Your task to perform on an android device: install app "Google Play Games" Image 0: 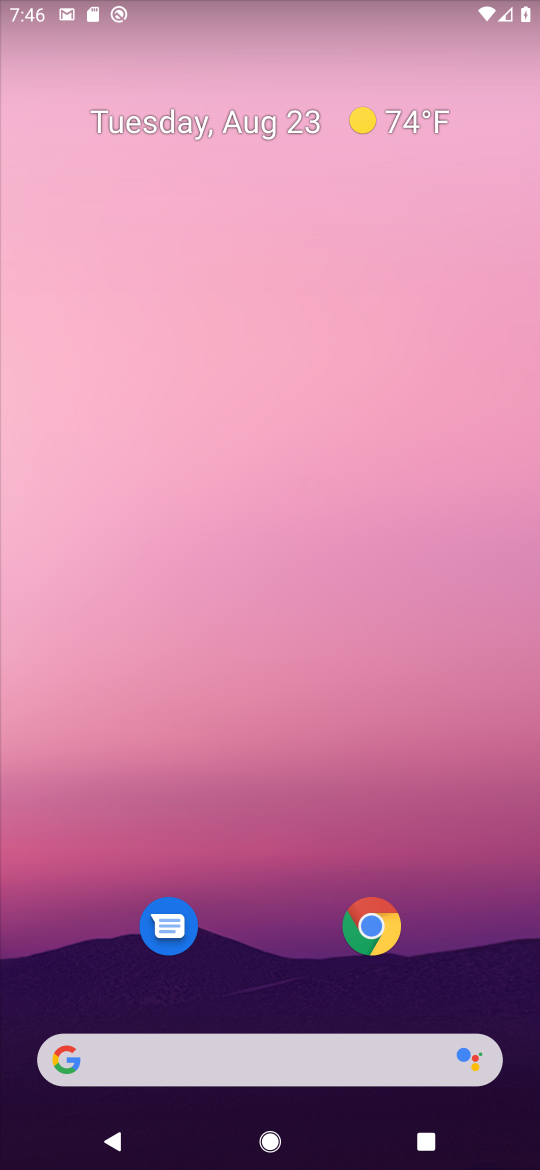
Step 0: drag from (252, 1001) to (293, 4)
Your task to perform on an android device: install app "Google Play Games" Image 1: 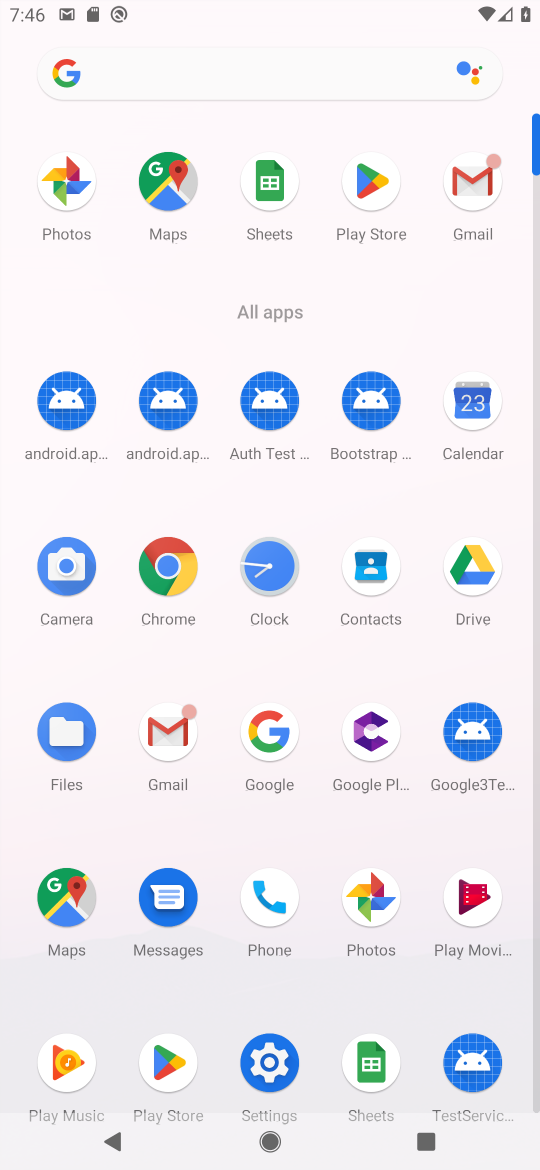
Step 1: click (380, 199)
Your task to perform on an android device: install app "Google Play Games" Image 2: 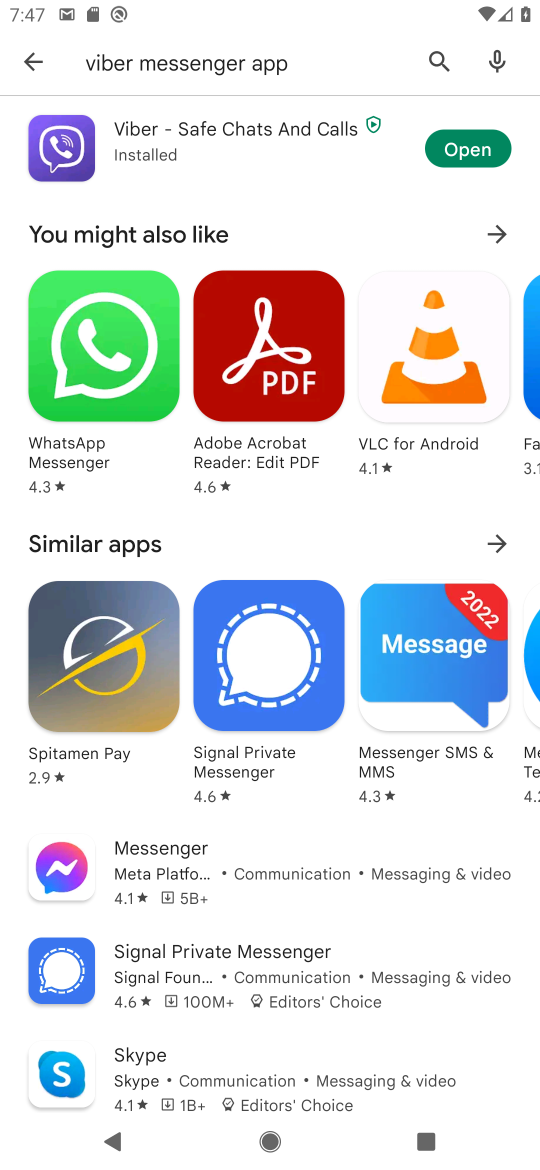
Step 2: click (208, 66)
Your task to perform on an android device: install app "Google Play Games" Image 3: 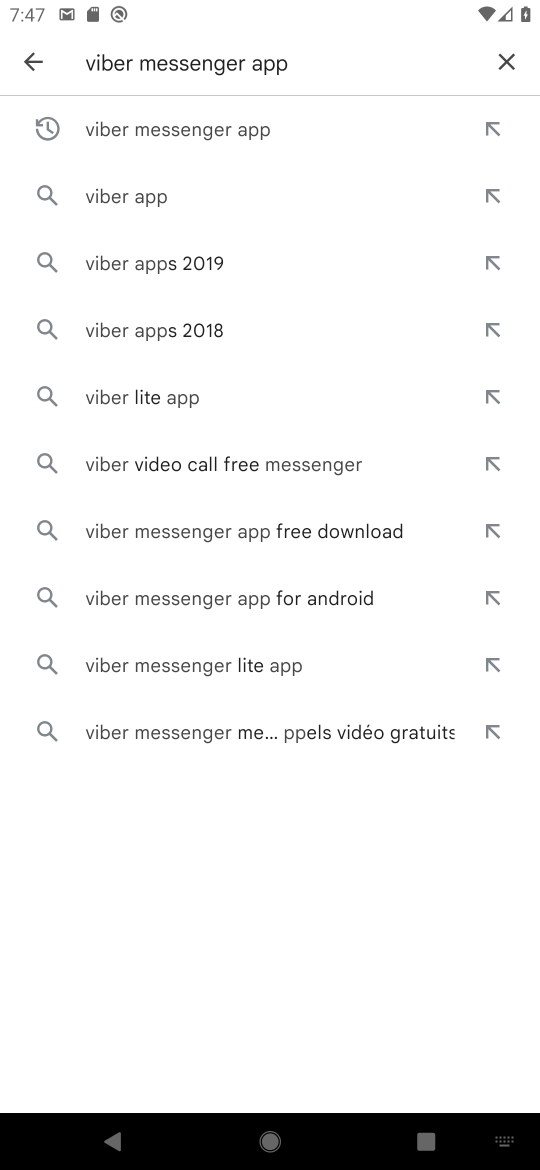
Step 3: click (514, 54)
Your task to perform on an android device: install app "Google Play Games" Image 4: 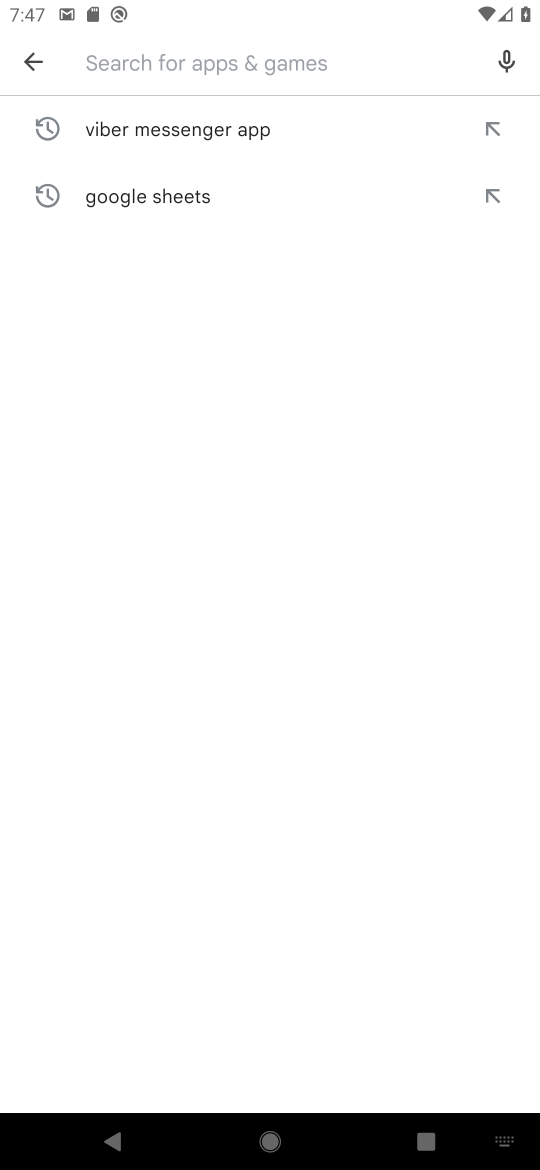
Step 4: type "google play games"
Your task to perform on an android device: install app "Google Play Games" Image 5: 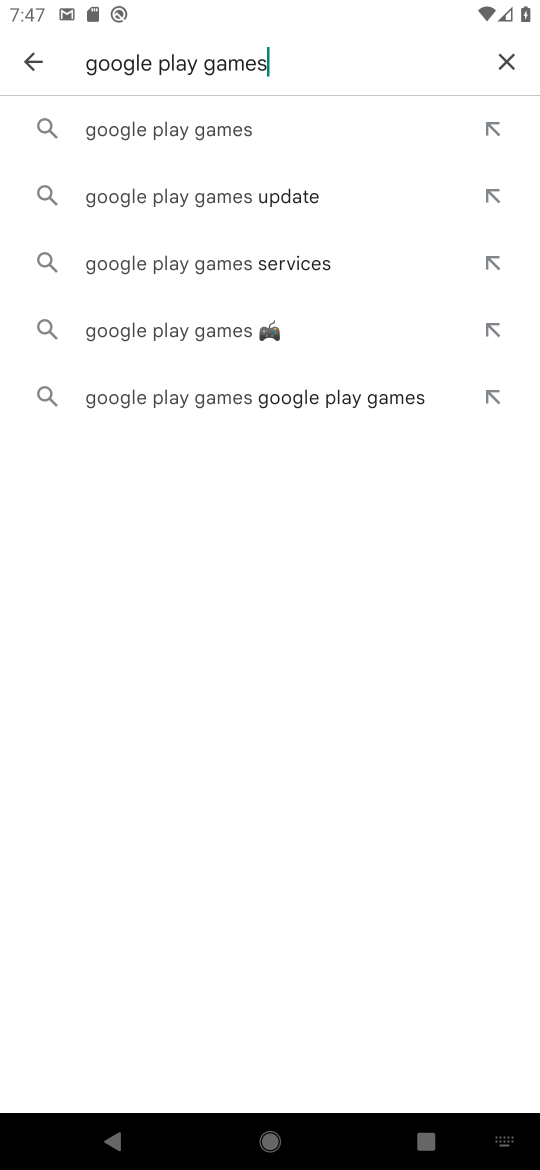
Step 5: click (135, 142)
Your task to perform on an android device: install app "Google Play Games" Image 6: 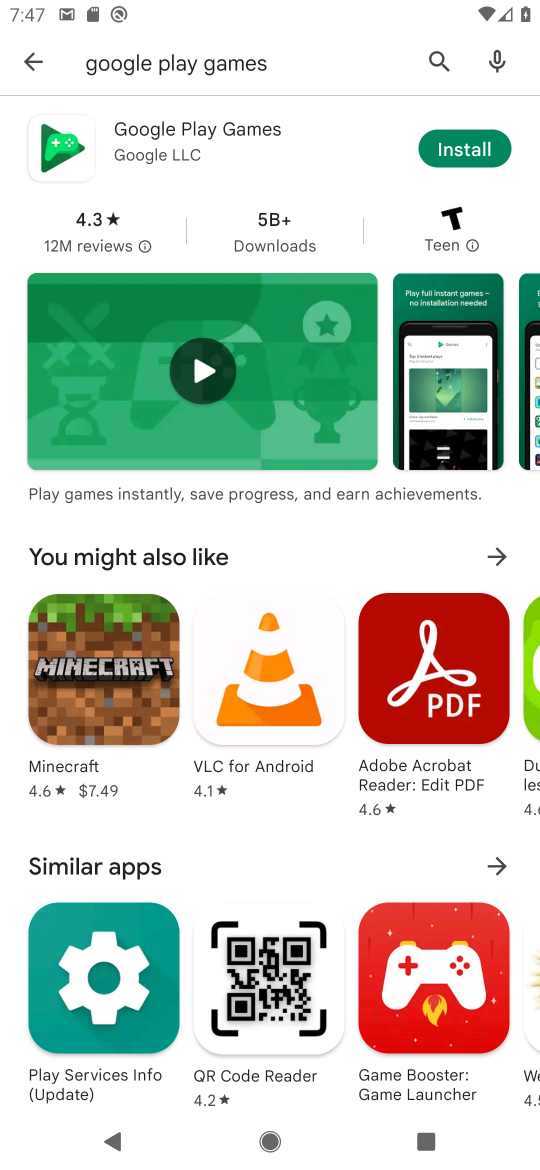
Step 6: click (478, 153)
Your task to perform on an android device: install app "Google Play Games" Image 7: 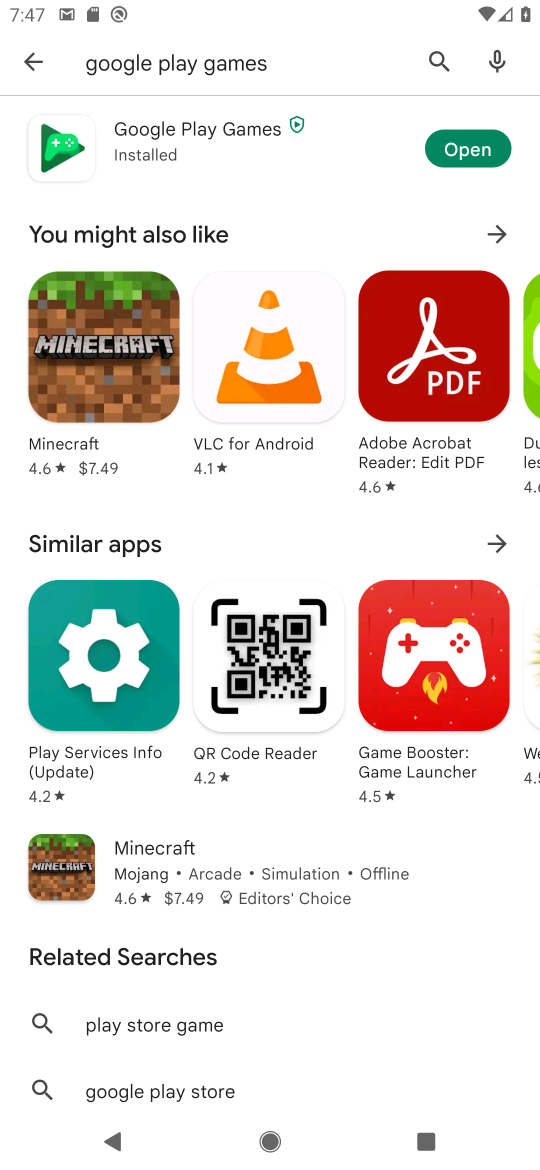
Step 7: task complete